Your task to perform on an android device: check battery use Image 0: 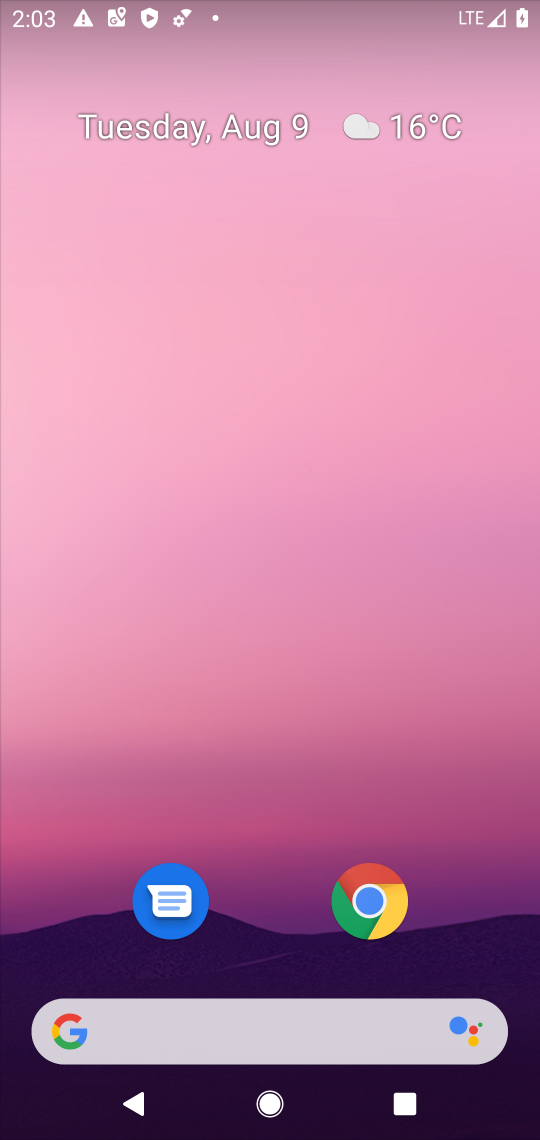
Step 0: drag from (504, 982) to (485, 122)
Your task to perform on an android device: check battery use Image 1: 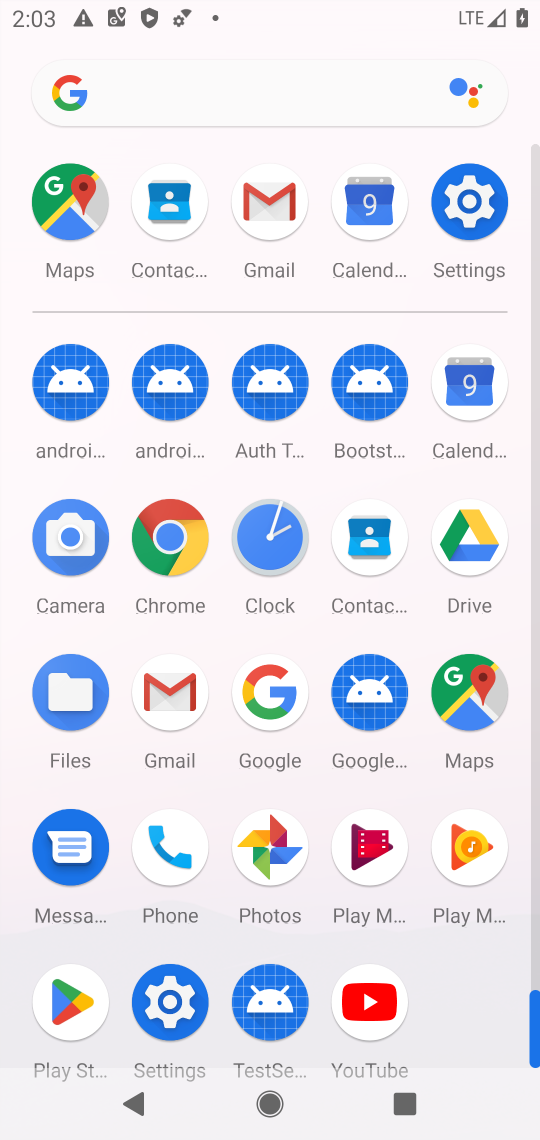
Step 1: click (167, 999)
Your task to perform on an android device: check battery use Image 2: 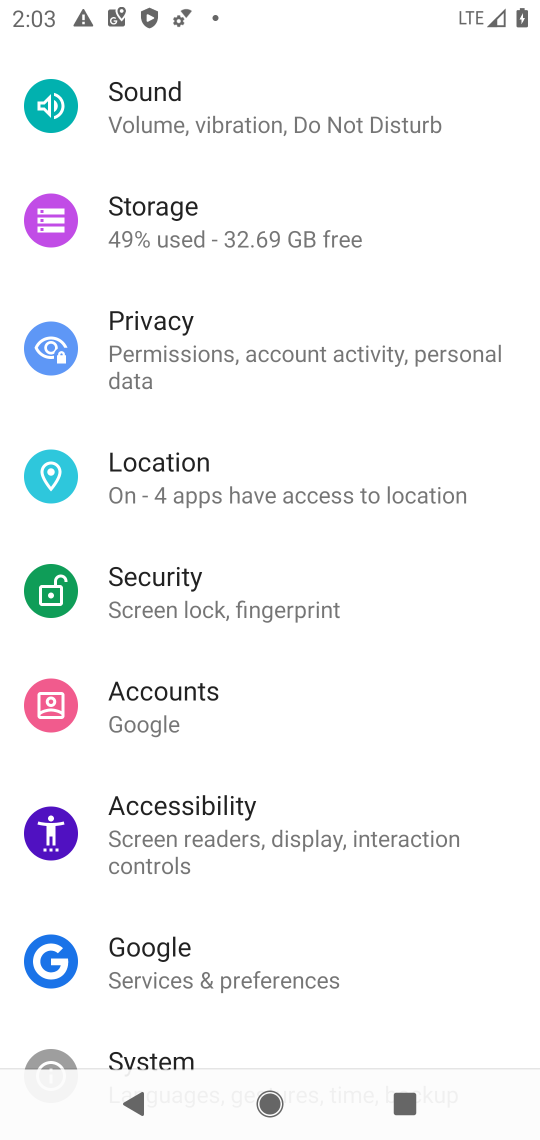
Step 2: drag from (451, 231) to (468, 602)
Your task to perform on an android device: check battery use Image 3: 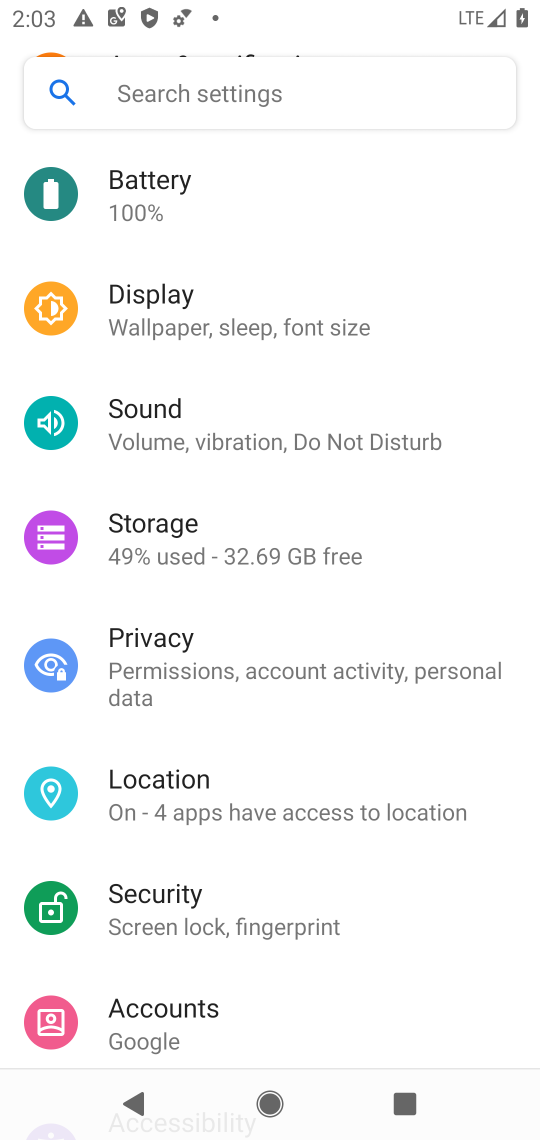
Step 3: drag from (473, 268) to (454, 559)
Your task to perform on an android device: check battery use Image 4: 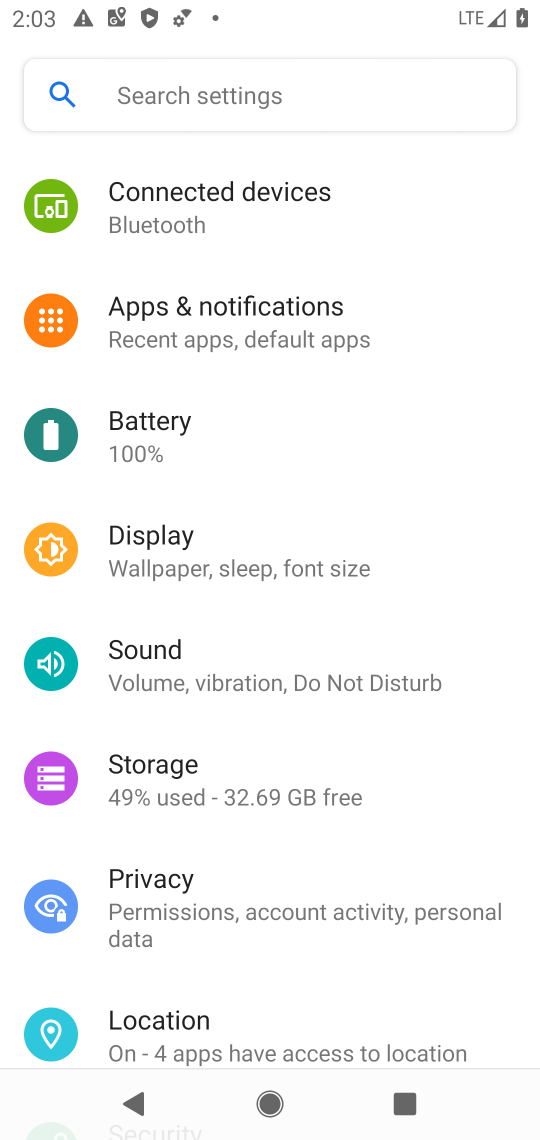
Step 4: click (137, 423)
Your task to perform on an android device: check battery use Image 5: 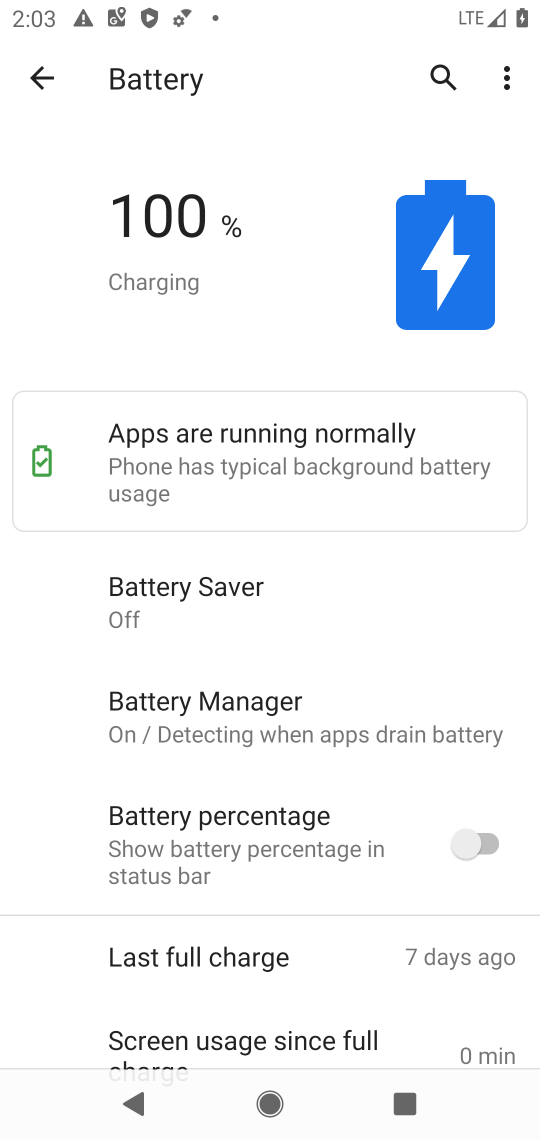
Step 5: click (504, 88)
Your task to perform on an android device: check battery use Image 6: 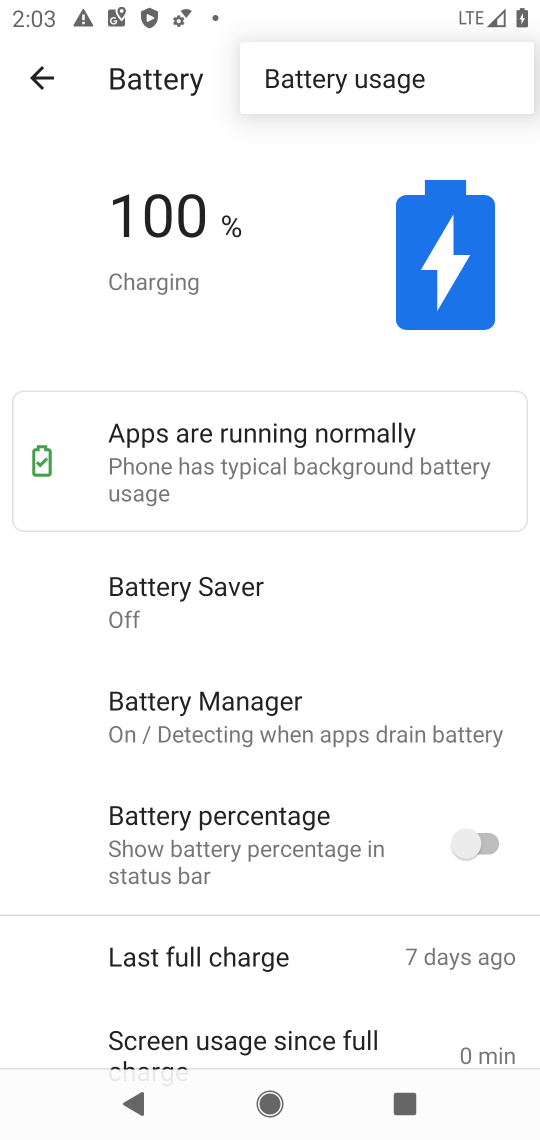
Step 6: click (335, 77)
Your task to perform on an android device: check battery use Image 7: 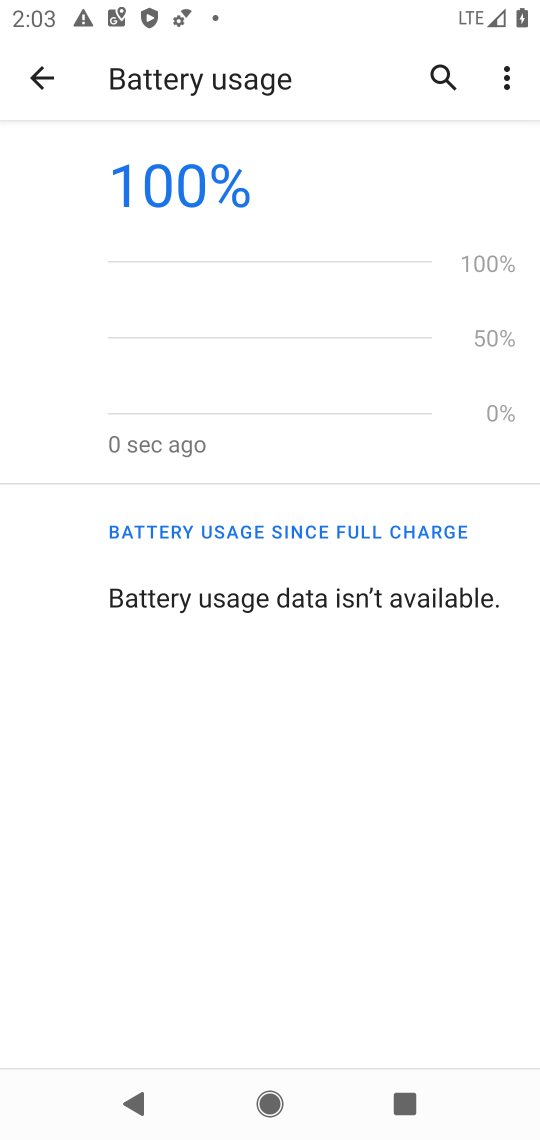
Step 7: task complete